Your task to perform on an android device: Open Maps and search for coffee Image 0: 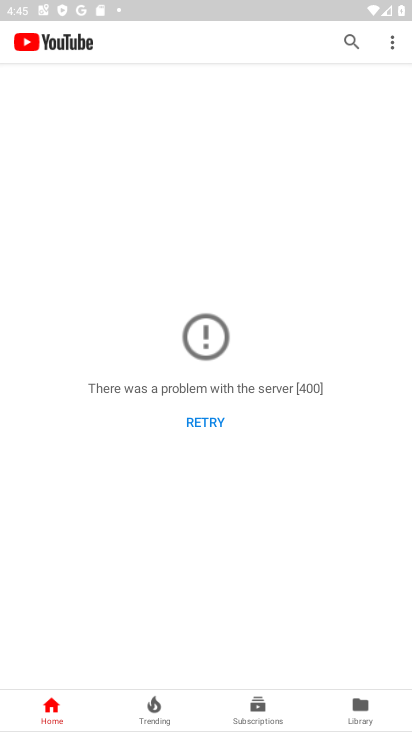
Step 0: press home button
Your task to perform on an android device: Open Maps and search for coffee Image 1: 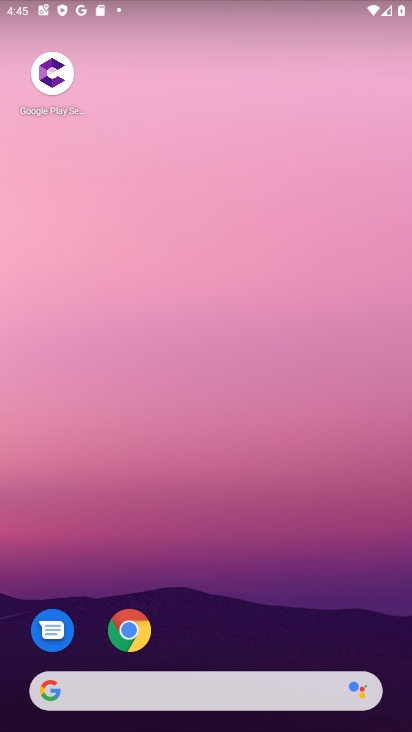
Step 1: drag from (199, 685) to (278, 97)
Your task to perform on an android device: Open Maps and search for coffee Image 2: 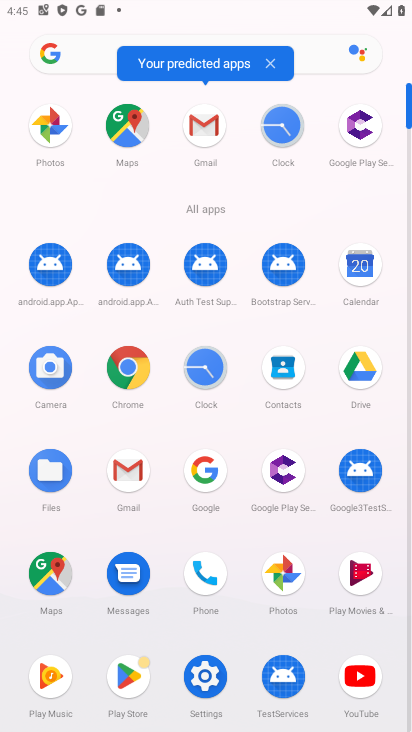
Step 2: click (127, 127)
Your task to perform on an android device: Open Maps and search for coffee Image 3: 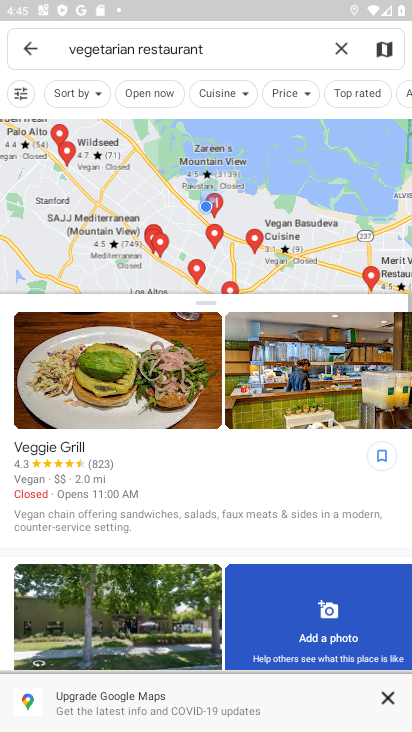
Step 3: click (342, 49)
Your task to perform on an android device: Open Maps and search for coffee Image 4: 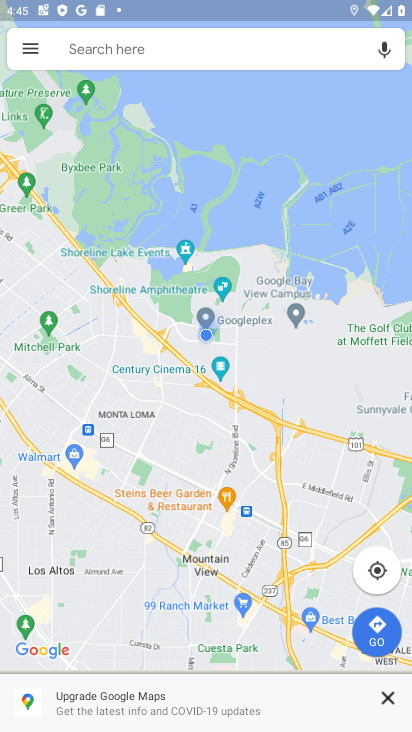
Step 4: click (263, 50)
Your task to perform on an android device: Open Maps and search for coffee Image 5: 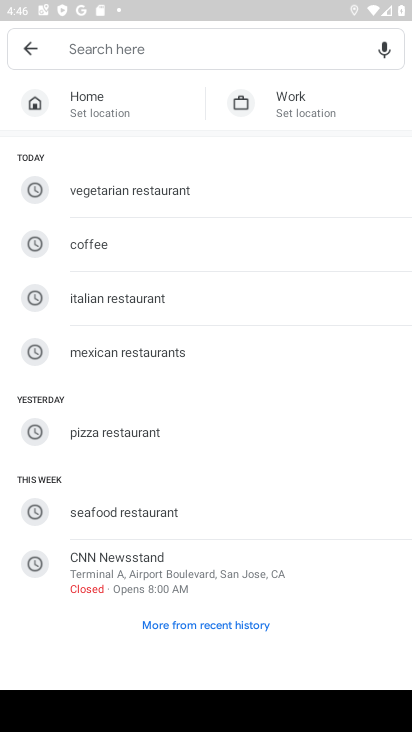
Step 5: type "coffee"
Your task to perform on an android device: Open Maps and search for coffee Image 6: 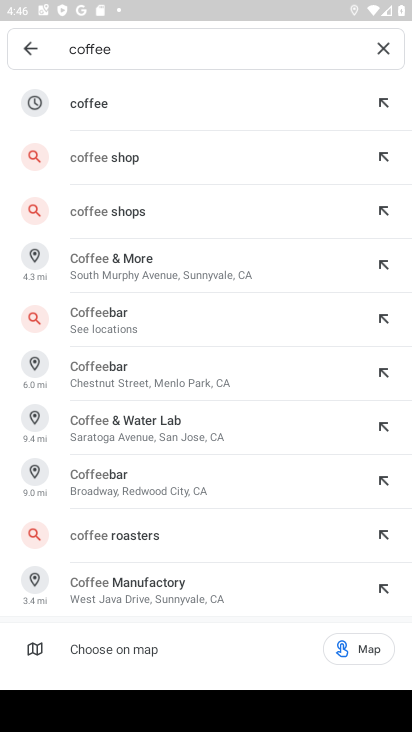
Step 6: click (81, 99)
Your task to perform on an android device: Open Maps and search for coffee Image 7: 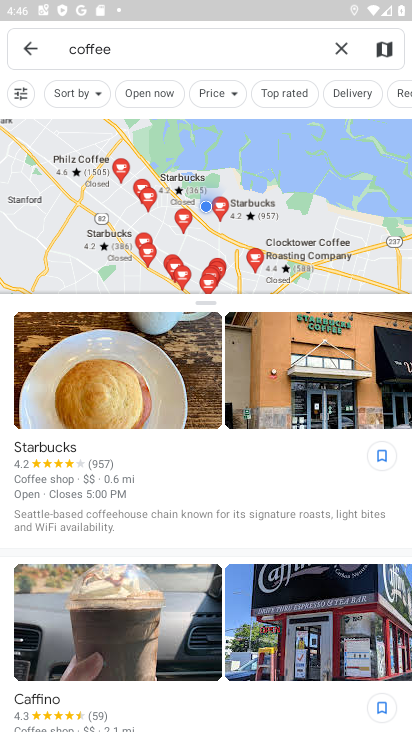
Step 7: task complete